Your task to perform on an android device: turn pop-ups on in chrome Image 0: 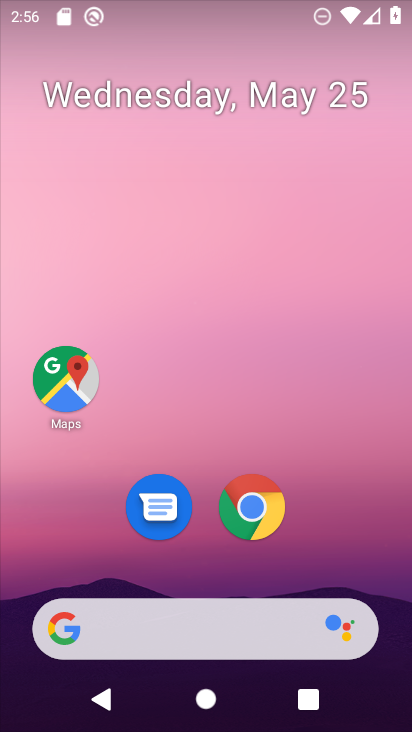
Step 0: drag from (226, 628) to (258, 161)
Your task to perform on an android device: turn pop-ups on in chrome Image 1: 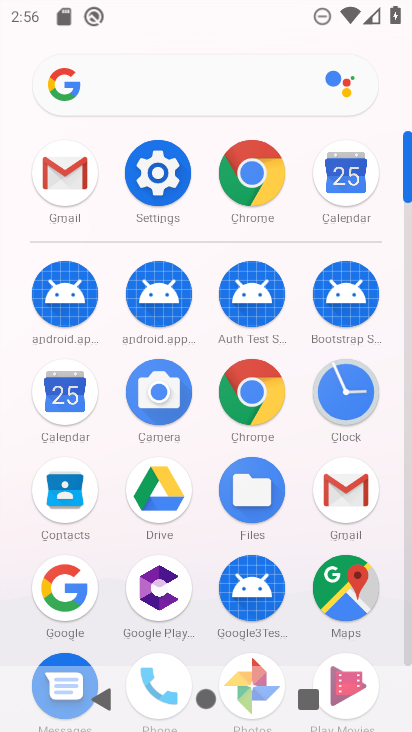
Step 1: click (266, 166)
Your task to perform on an android device: turn pop-ups on in chrome Image 2: 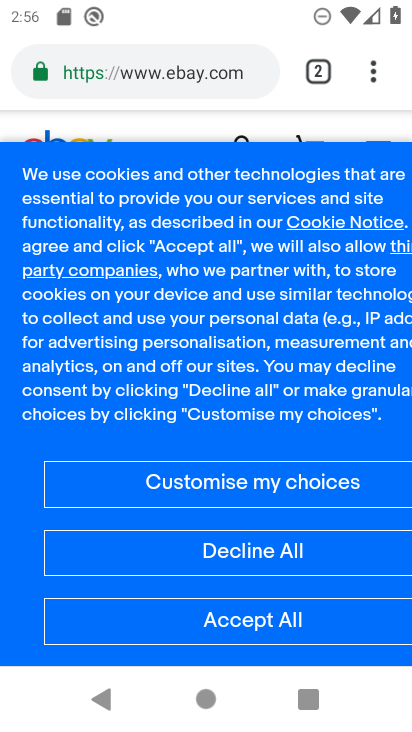
Step 2: click (375, 78)
Your task to perform on an android device: turn pop-ups on in chrome Image 3: 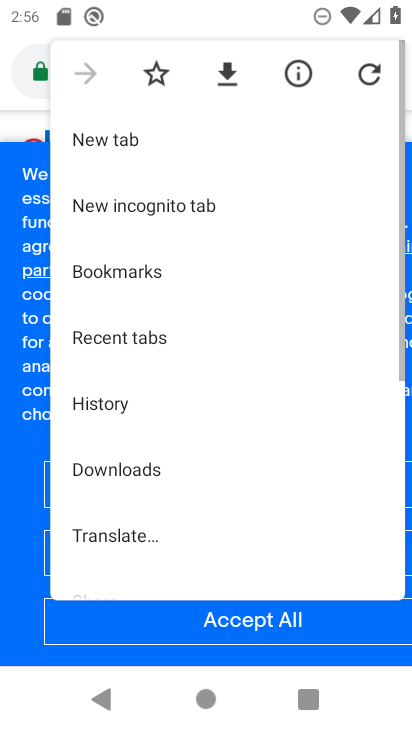
Step 3: drag from (229, 467) to (297, 114)
Your task to perform on an android device: turn pop-ups on in chrome Image 4: 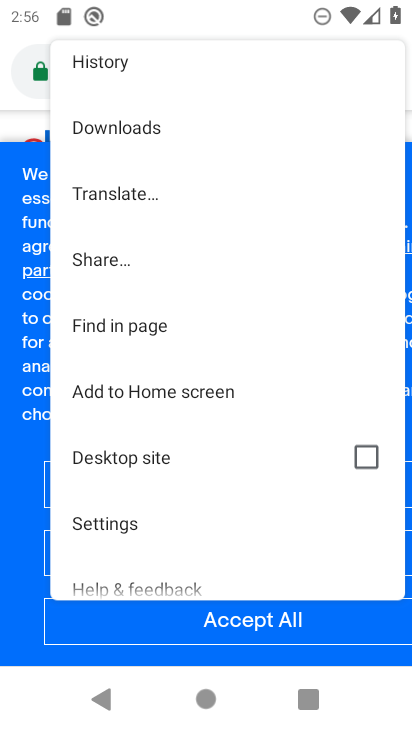
Step 4: click (139, 522)
Your task to perform on an android device: turn pop-ups on in chrome Image 5: 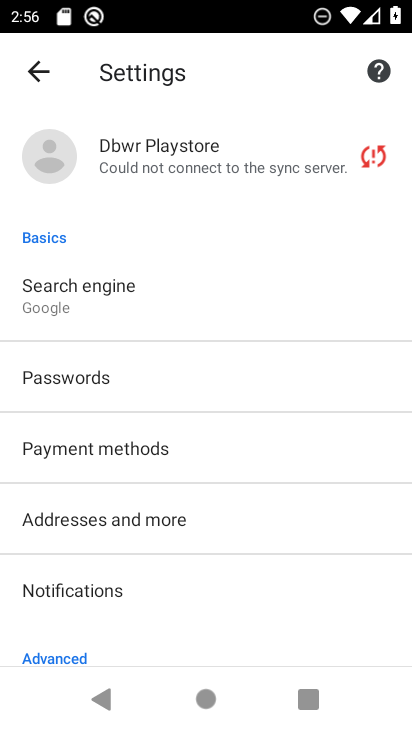
Step 5: drag from (156, 560) to (194, 128)
Your task to perform on an android device: turn pop-ups on in chrome Image 6: 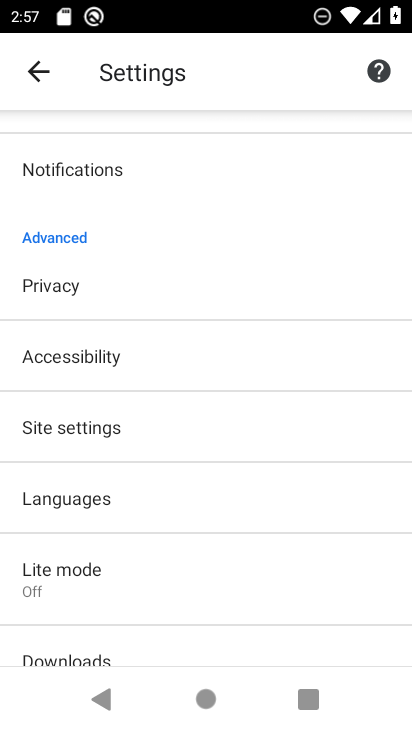
Step 6: click (99, 429)
Your task to perform on an android device: turn pop-ups on in chrome Image 7: 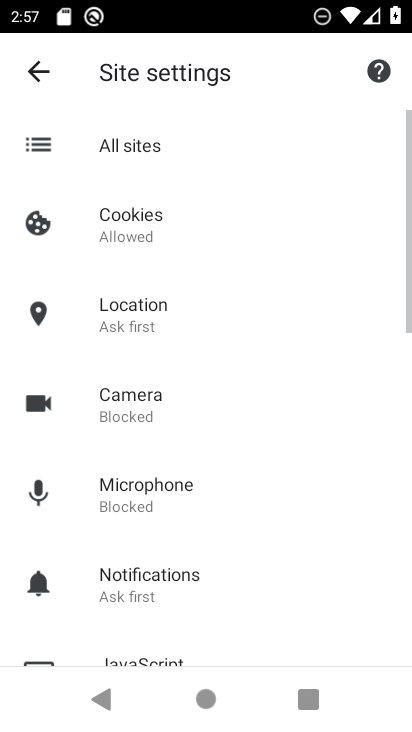
Step 7: drag from (137, 550) to (268, 109)
Your task to perform on an android device: turn pop-ups on in chrome Image 8: 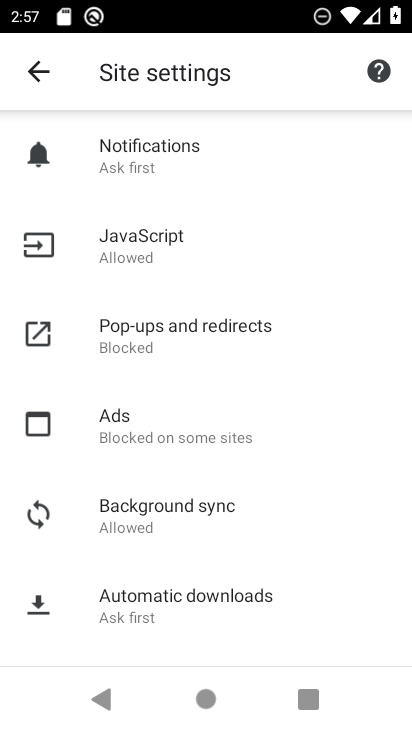
Step 8: click (203, 362)
Your task to perform on an android device: turn pop-ups on in chrome Image 9: 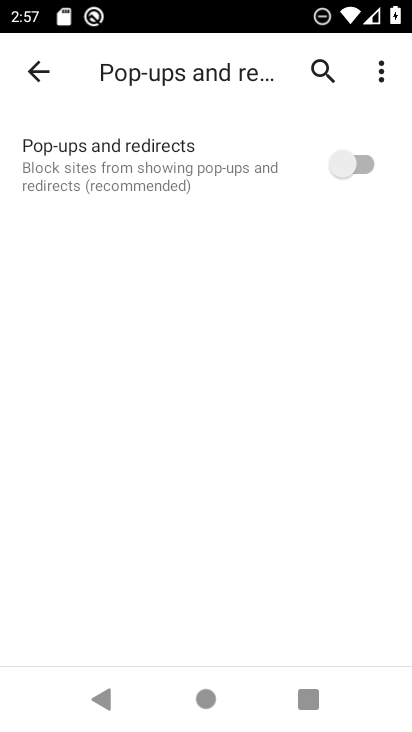
Step 9: click (263, 169)
Your task to perform on an android device: turn pop-ups on in chrome Image 10: 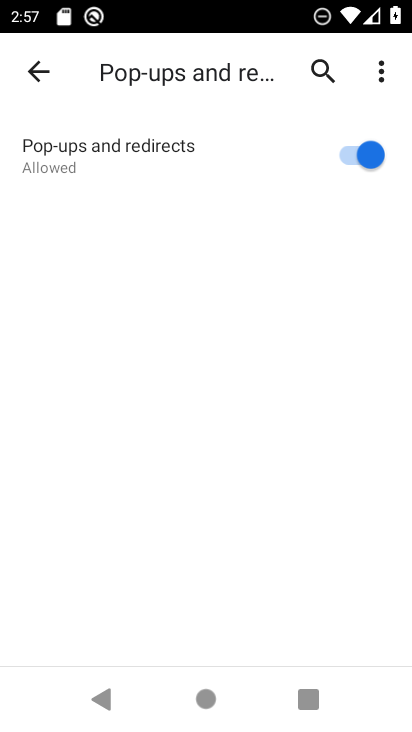
Step 10: task complete